Your task to perform on an android device: Open the map Image 0: 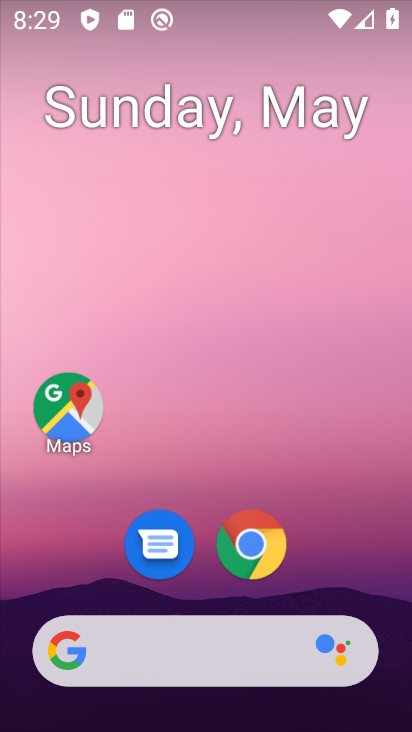
Step 0: drag from (343, 574) to (383, 52)
Your task to perform on an android device: Open the map Image 1: 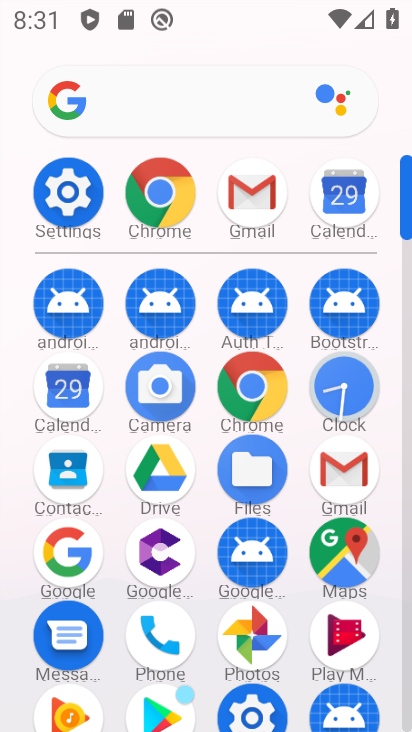
Step 1: click (340, 564)
Your task to perform on an android device: Open the map Image 2: 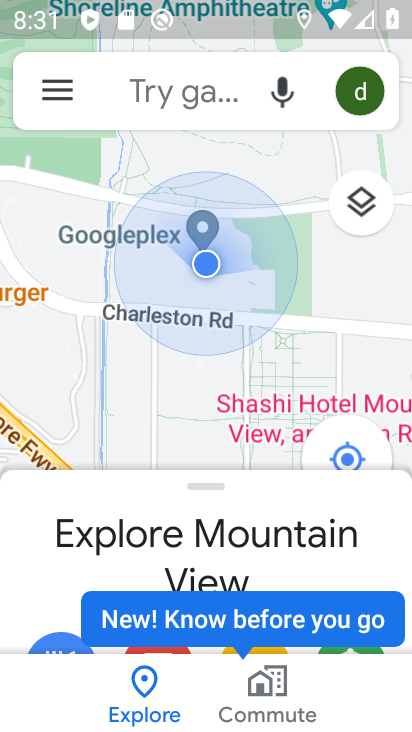
Step 2: task complete